Your task to perform on an android device: search for starred emails in the gmail app Image 0: 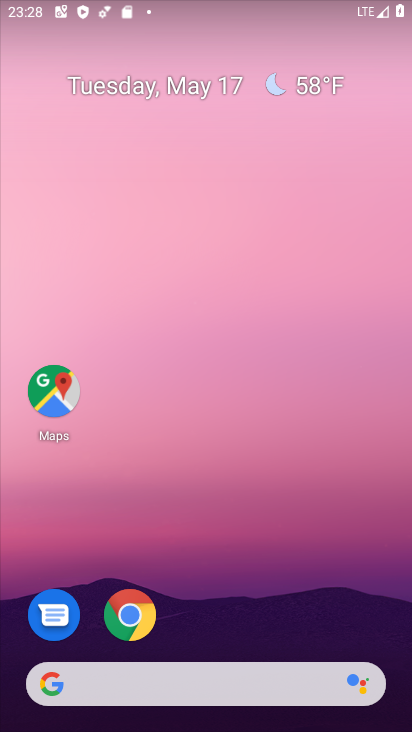
Step 0: drag from (226, 622) to (226, 184)
Your task to perform on an android device: search for starred emails in the gmail app Image 1: 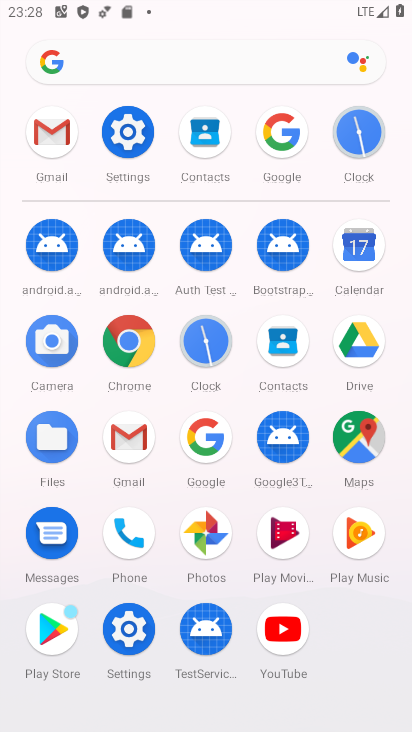
Step 1: click (126, 442)
Your task to perform on an android device: search for starred emails in the gmail app Image 2: 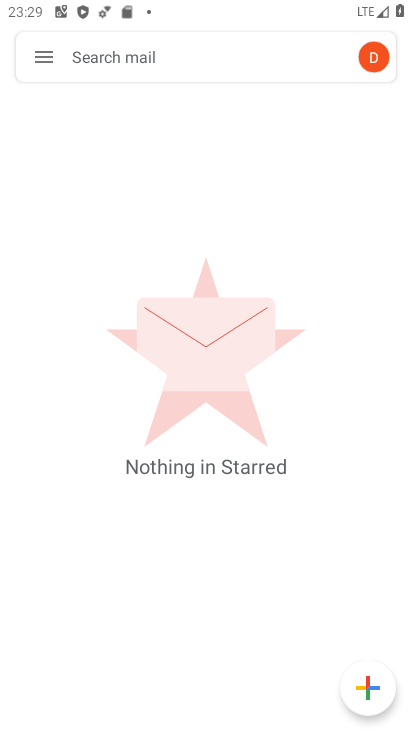
Step 2: click (47, 58)
Your task to perform on an android device: search for starred emails in the gmail app Image 3: 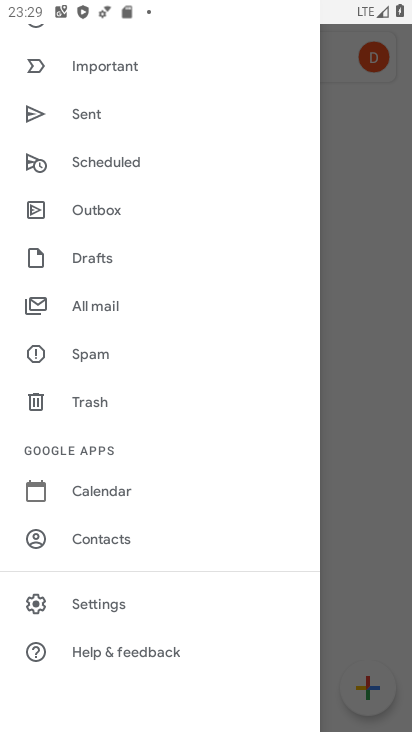
Step 3: drag from (150, 150) to (158, 430)
Your task to perform on an android device: search for starred emails in the gmail app Image 4: 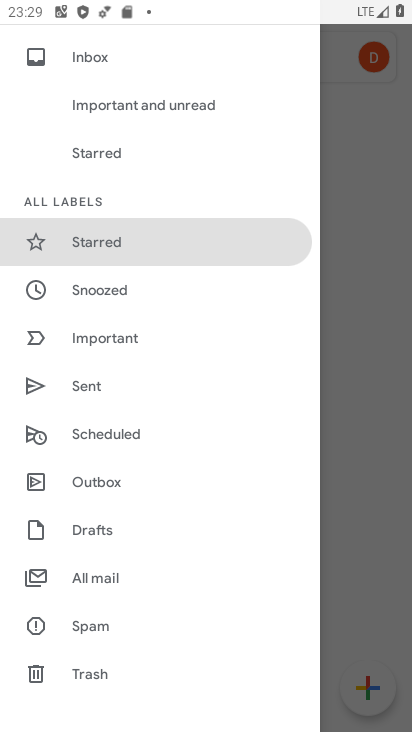
Step 4: click (114, 229)
Your task to perform on an android device: search for starred emails in the gmail app Image 5: 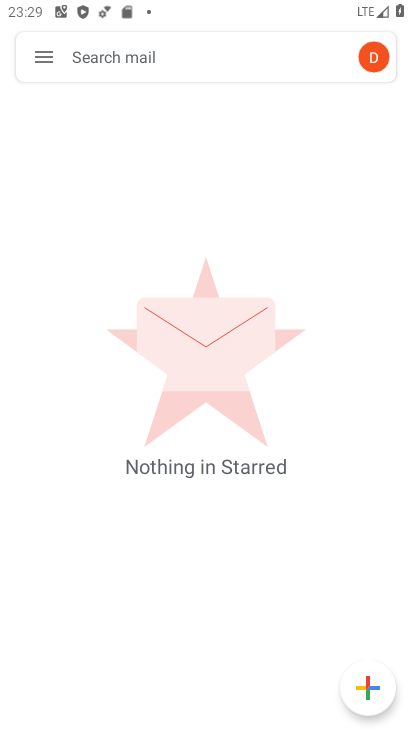
Step 5: task complete